Your task to perform on an android device: Open the map Image 0: 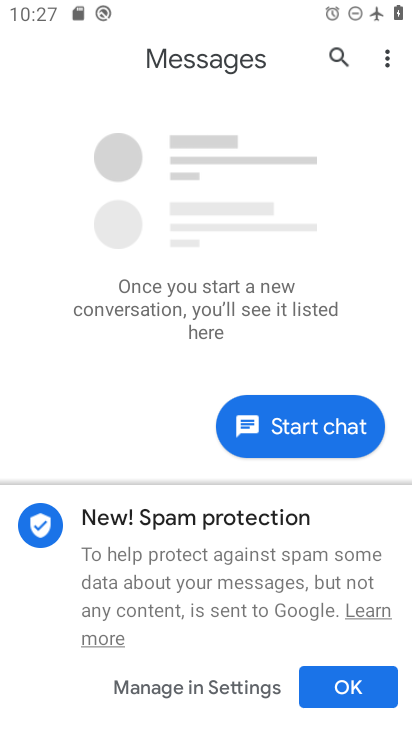
Step 0: press home button
Your task to perform on an android device: Open the map Image 1: 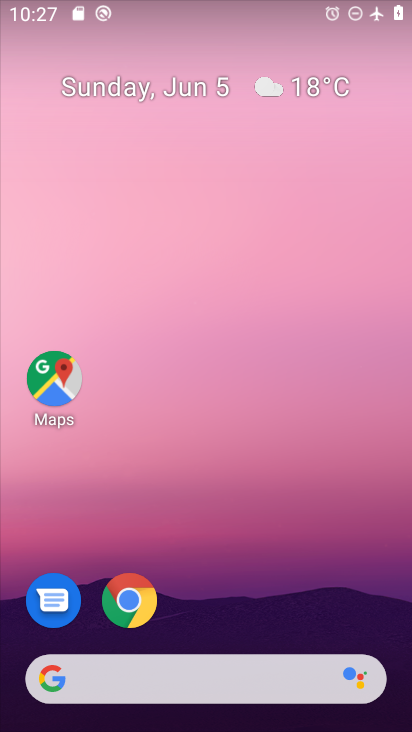
Step 1: click (43, 384)
Your task to perform on an android device: Open the map Image 2: 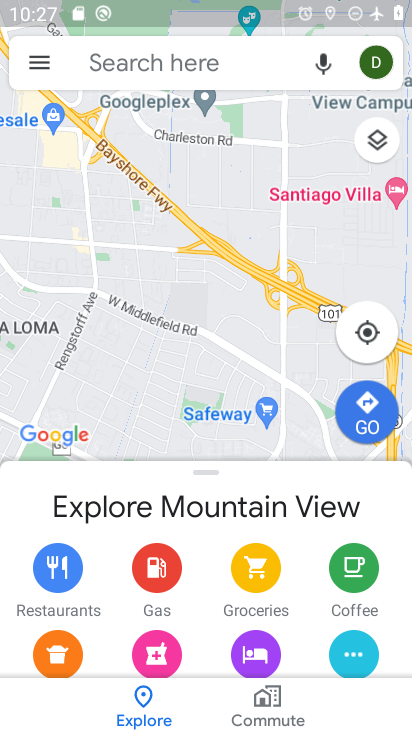
Step 2: task complete